Your task to perform on an android device: change the clock display to digital Image 0: 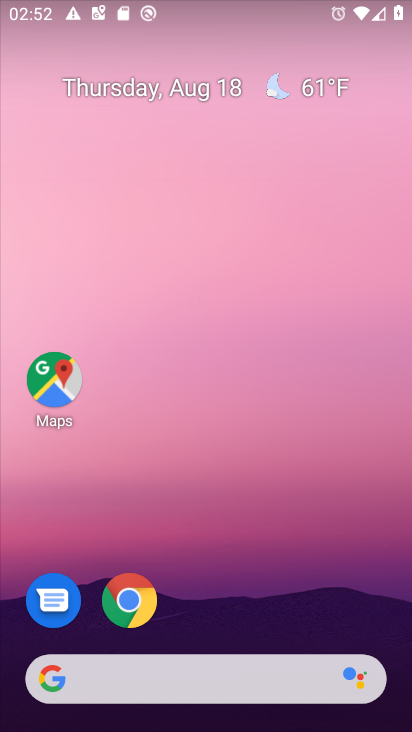
Step 0: drag from (240, 624) to (201, 65)
Your task to perform on an android device: change the clock display to digital Image 1: 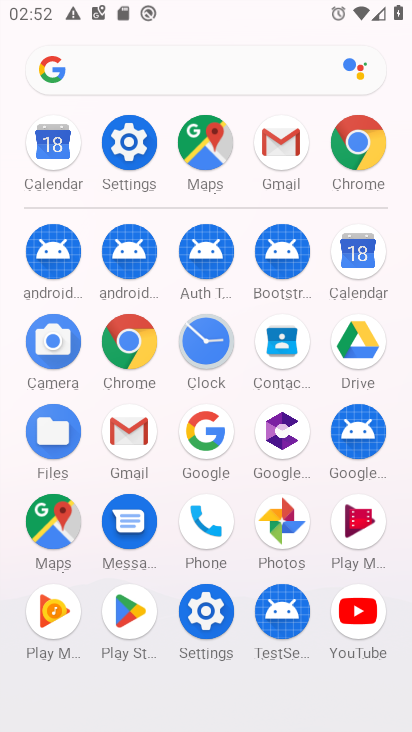
Step 1: click (209, 356)
Your task to perform on an android device: change the clock display to digital Image 2: 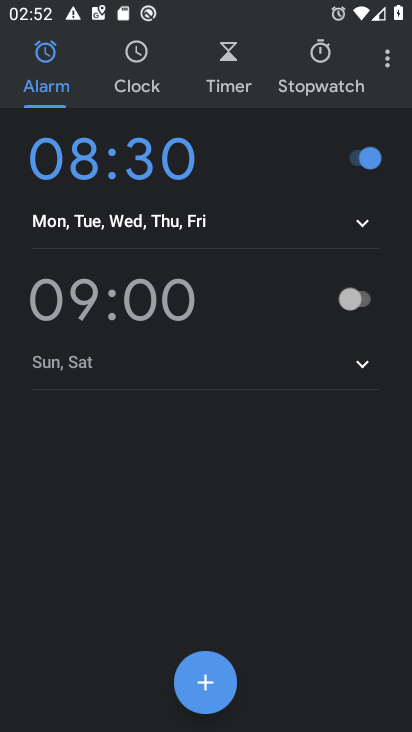
Step 2: click (381, 64)
Your task to perform on an android device: change the clock display to digital Image 3: 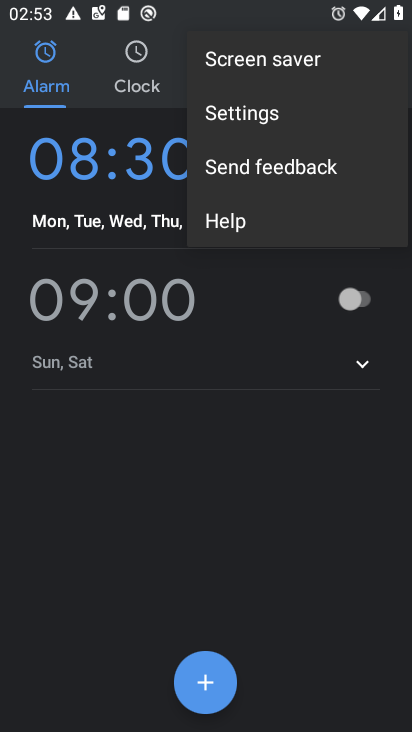
Step 3: click (243, 115)
Your task to perform on an android device: change the clock display to digital Image 4: 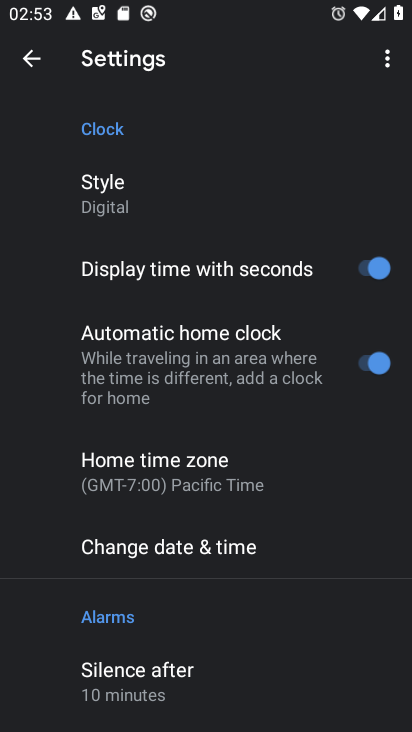
Step 4: click (100, 200)
Your task to perform on an android device: change the clock display to digital Image 5: 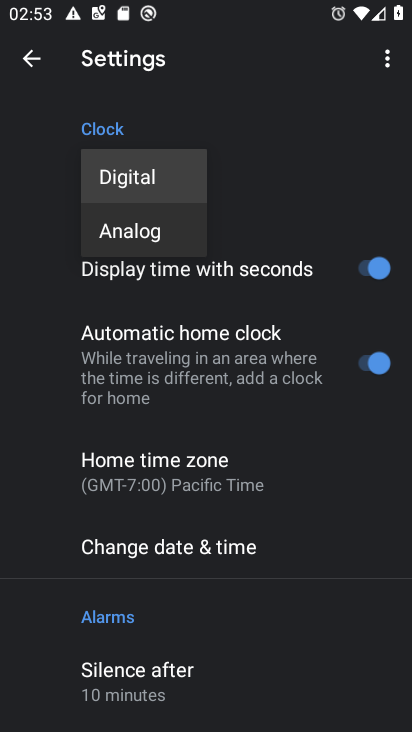
Step 5: task complete